Your task to perform on an android device: Show me recent news Image 0: 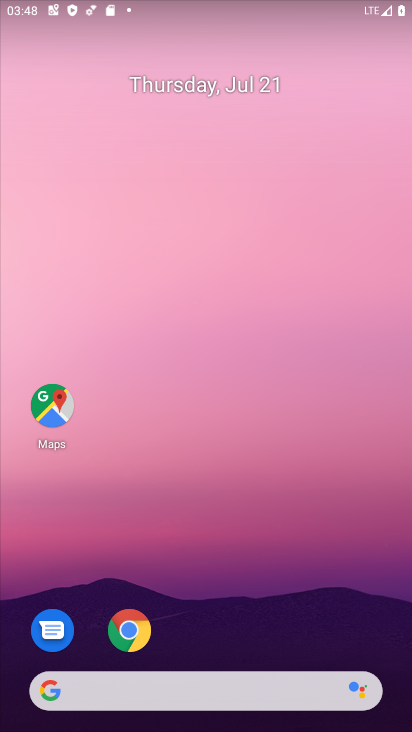
Step 0: click (169, 696)
Your task to perform on an android device: Show me recent news Image 1: 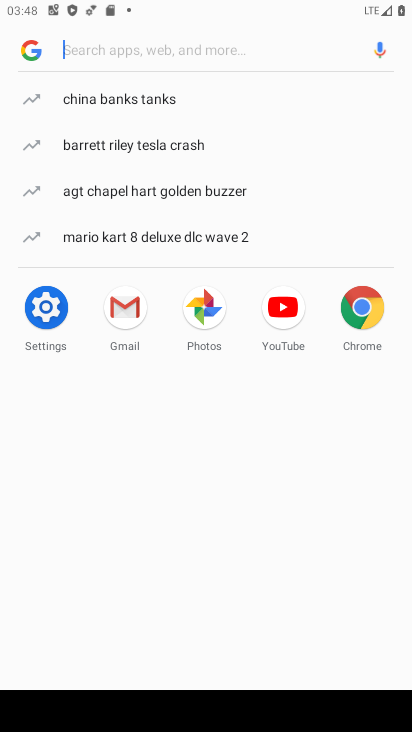
Step 1: click (28, 53)
Your task to perform on an android device: Show me recent news Image 2: 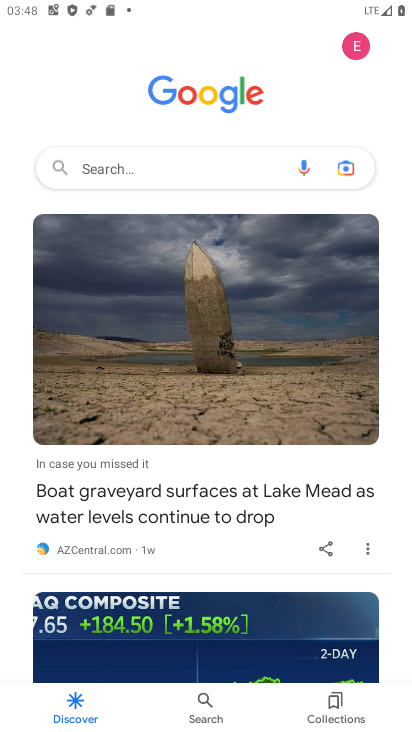
Step 2: click (126, 152)
Your task to perform on an android device: Show me recent news Image 3: 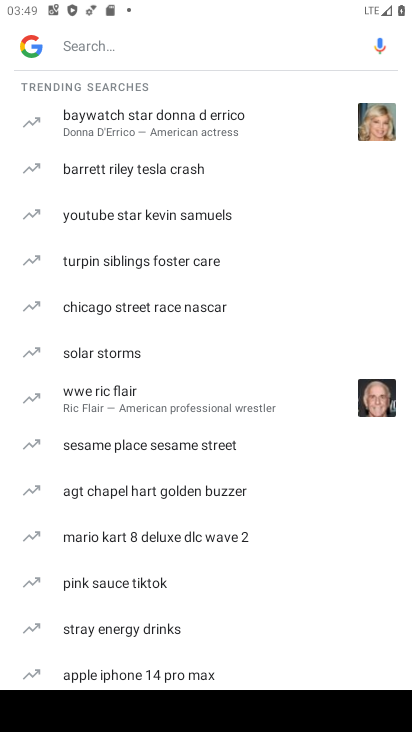
Step 3: click (46, 49)
Your task to perform on an android device: Show me recent news Image 4: 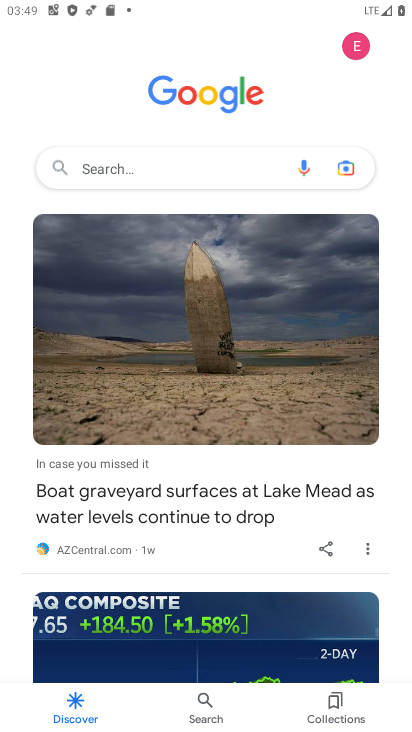
Step 4: task complete